Your task to perform on an android device: Go to Wikipedia Image 0: 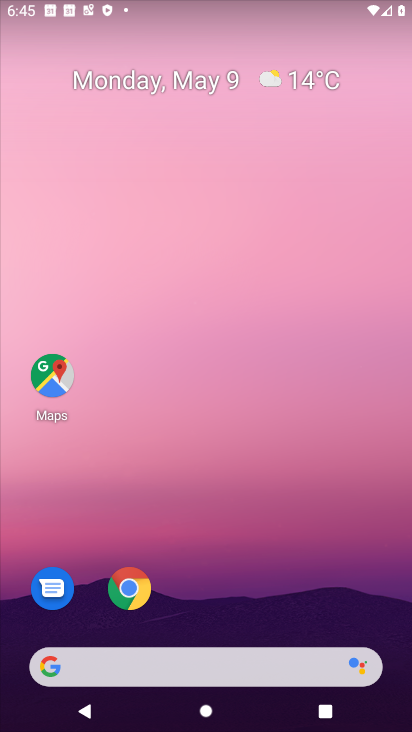
Step 0: drag from (321, 599) to (295, 83)
Your task to perform on an android device: Go to Wikipedia Image 1: 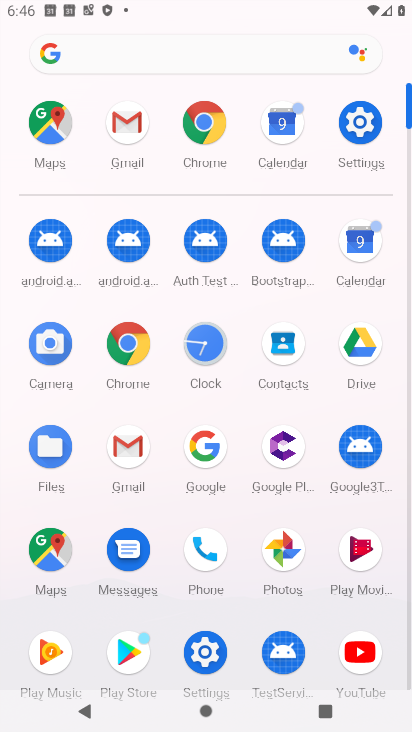
Step 1: click (212, 121)
Your task to perform on an android device: Go to Wikipedia Image 2: 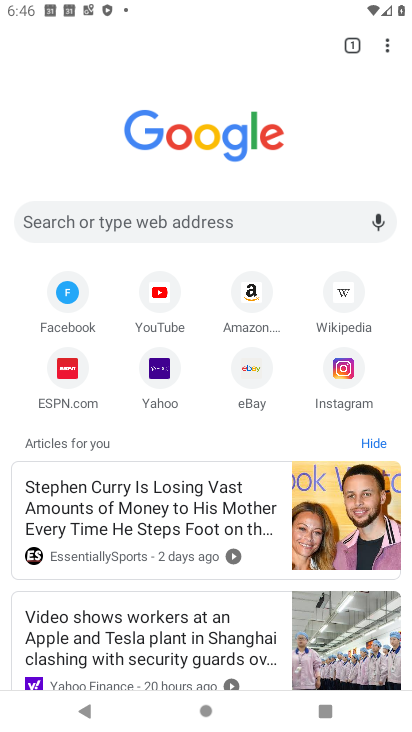
Step 2: click (159, 216)
Your task to perform on an android device: Go to Wikipedia Image 3: 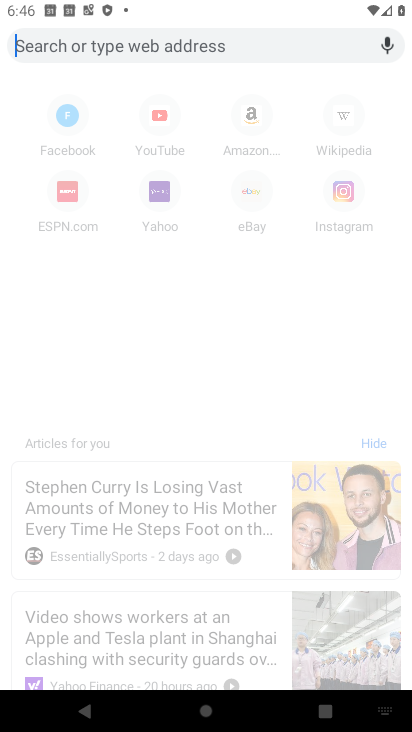
Step 3: type "wikipedia"
Your task to perform on an android device: Go to Wikipedia Image 4: 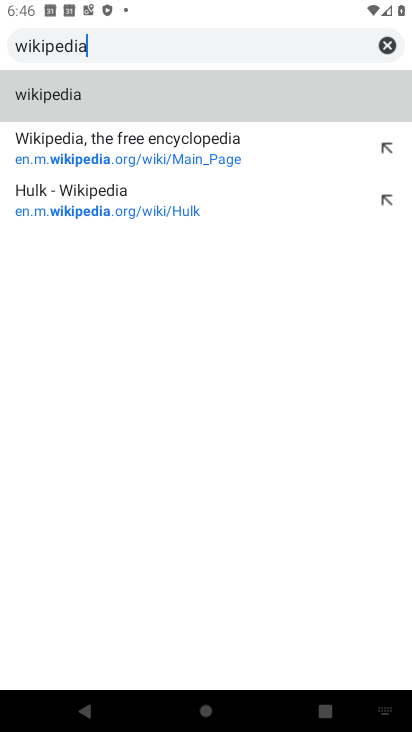
Step 4: click (193, 103)
Your task to perform on an android device: Go to Wikipedia Image 5: 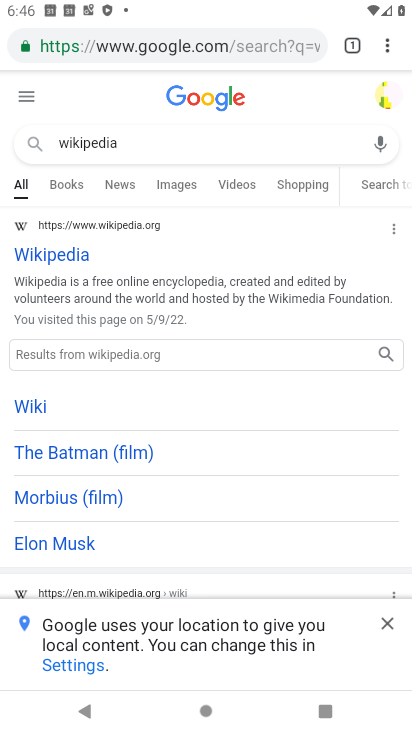
Step 5: click (60, 263)
Your task to perform on an android device: Go to Wikipedia Image 6: 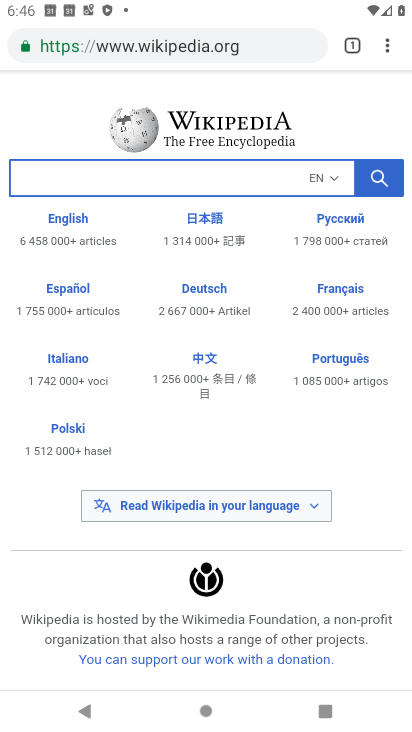
Step 6: task complete